Your task to perform on an android device: turn vacation reply on in the gmail app Image 0: 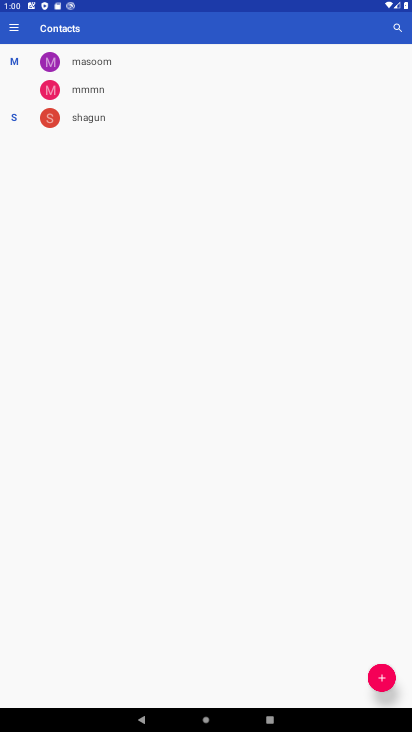
Step 0: press home button
Your task to perform on an android device: turn vacation reply on in the gmail app Image 1: 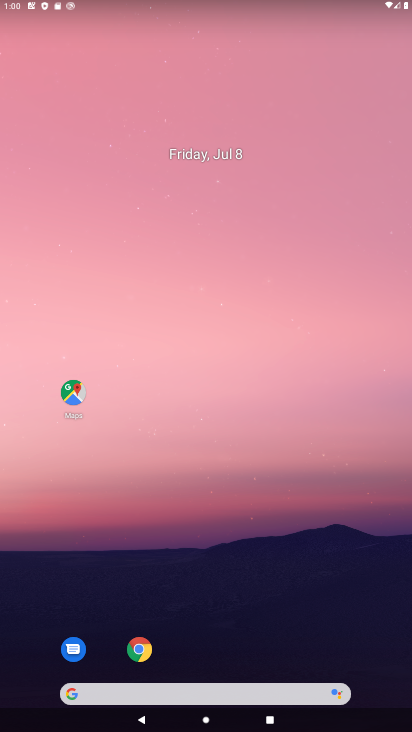
Step 1: drag from (74, 519) to (360, 3)
Your task to perform on an android device: turn vacation reply on in the gmail app Image 2: 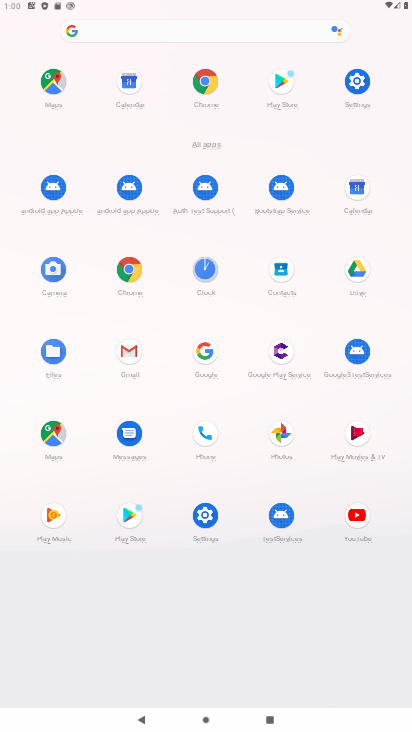
Step 2: click (127, 360)
Your task to perform on an android device: turn vacation reply on in the gmail app Image 3: 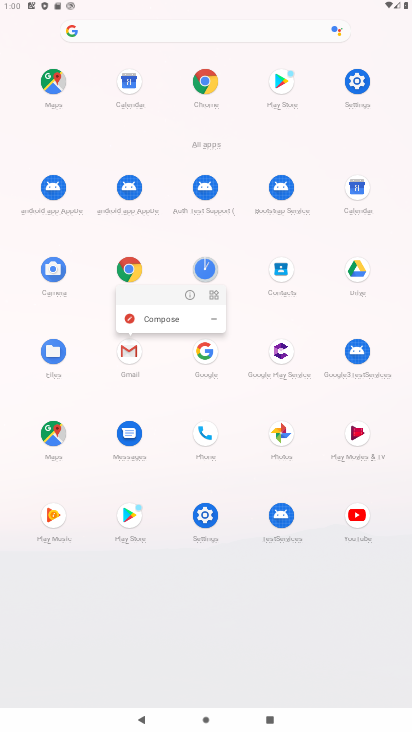
Step 3: click (124, 350)
Your task to perform on an android device: turn vacation reply on in the gmail app Image 4: 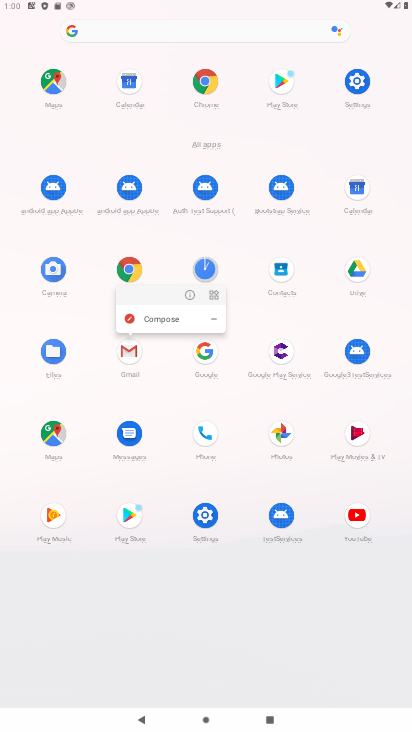
Step 4: click (126, 356)
Your task to perform on an android device: turn vacation reply on in the gmail app Image 5: 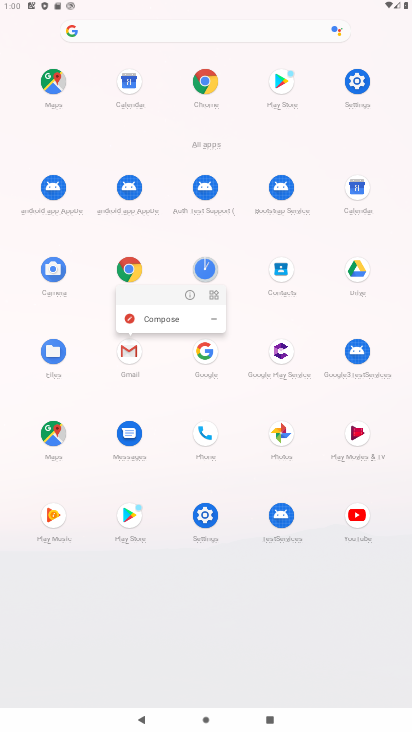
Step 5: click (131, 355)
Your task to perform on an android device: turn vacation reply on in the gmail app Image 6: 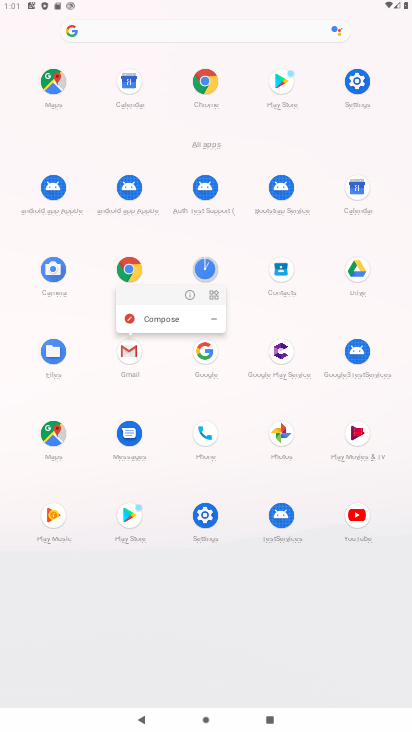
Step 6: task complete